Your task to perform on an android device: Open sound settings Image 0: 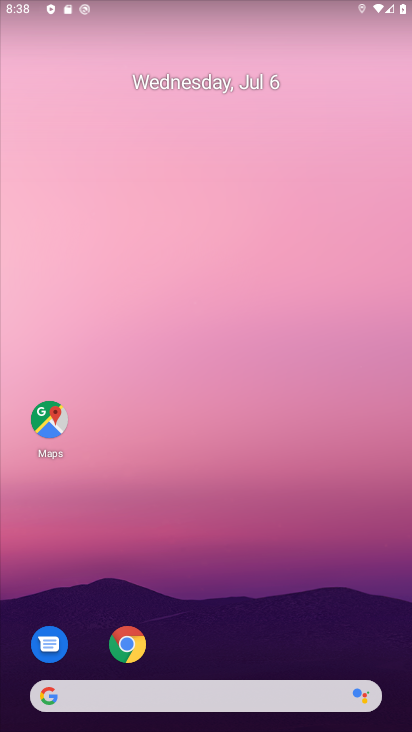
Step 0: drag from (201, 660) to (207, 130)
Your task to perform on an android device: Open sound settings Image 1: 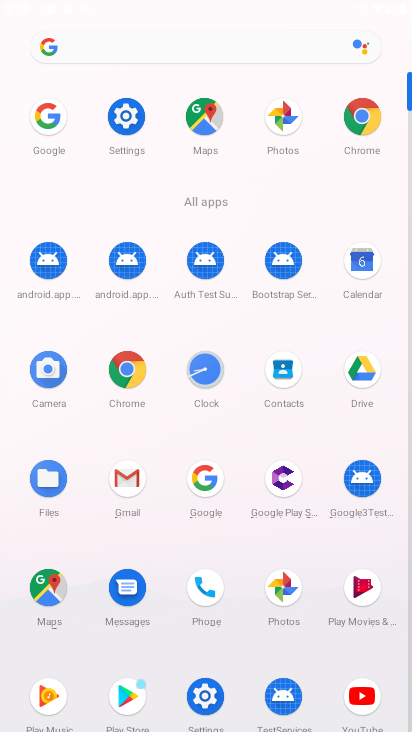
Step 1: click (128, 124)
Your task to perform on an android device: Open sound settings Image 2: 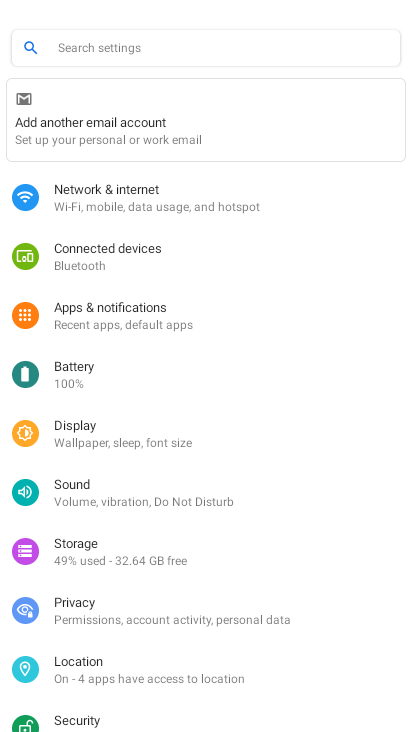
Step 2: drag from (142, 625) to (141, 442)
Your task to perform on an android device: Open sound settings Image 3: 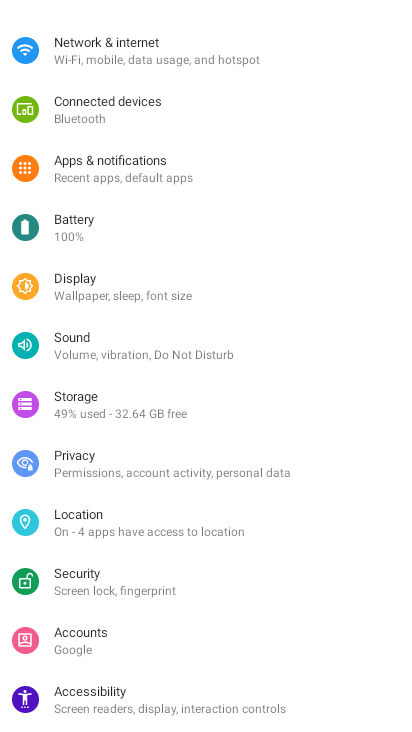
Step 3: click (91, 354)
Your task to perform on an android device: Open sound settings Image 4: 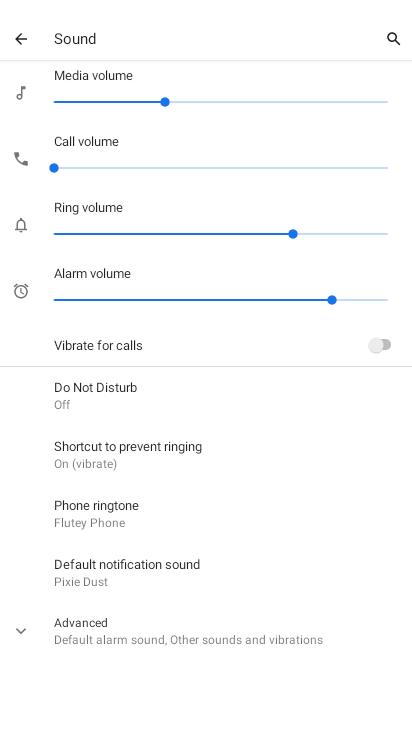
Step 4: task complete